Your task to perform on an android device: turn off translation in the chrome app Image 0: 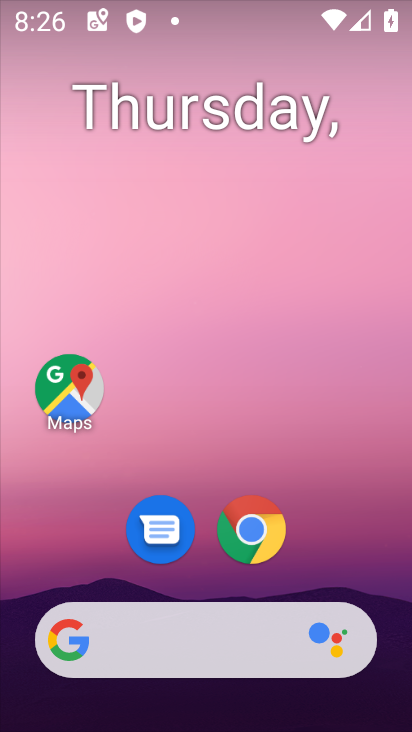
Step 0: click (258, 529)
Your task to perform on an android device: turn off translation in the chrome app Image 1: 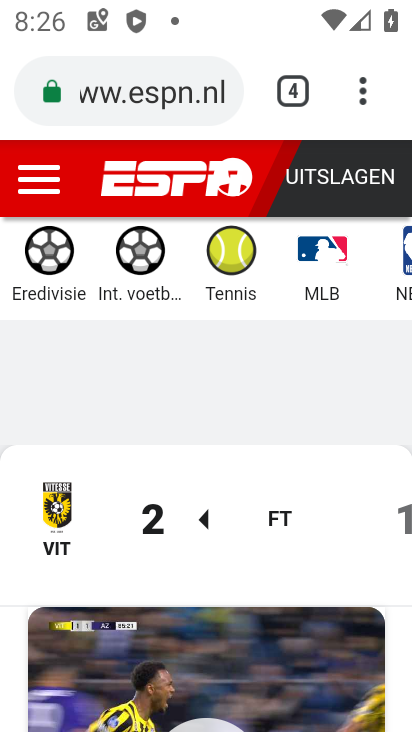
Step 1: click (361, 103)
Your task to perform on an android device: turn off translation in the chrome app Image 2: 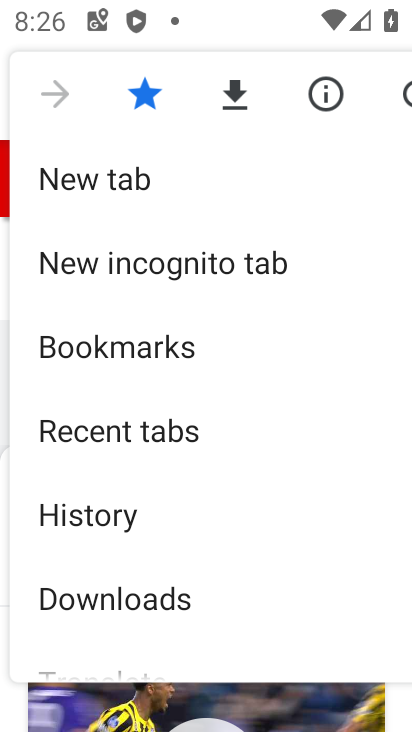
Step 2: drag from (115, 602) to (159, 226)
Your task to perform on an android device: turn off translation in the chrome app Image 3: 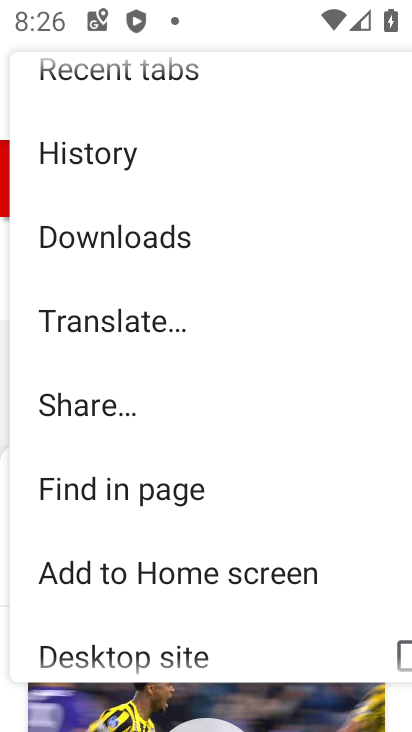
Step 3: drag from (126, 622) to (156, 254)
Your task to perform on an android device: turn off translation in the chrome app Image 4: 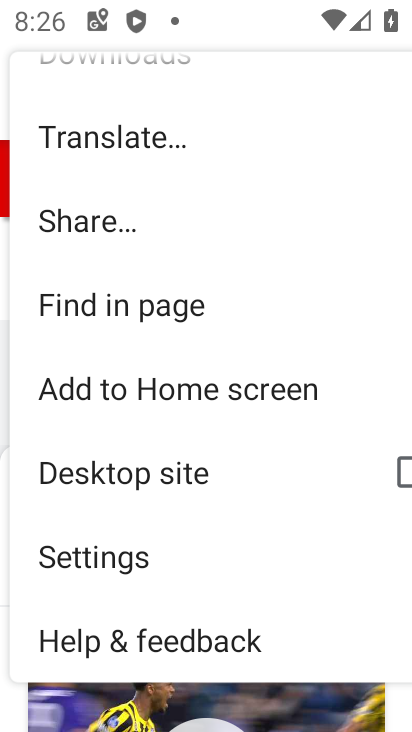
Step 4: click (107, 549)
Your task to perform on an android device: turn off translation in the chrome app Image 5: 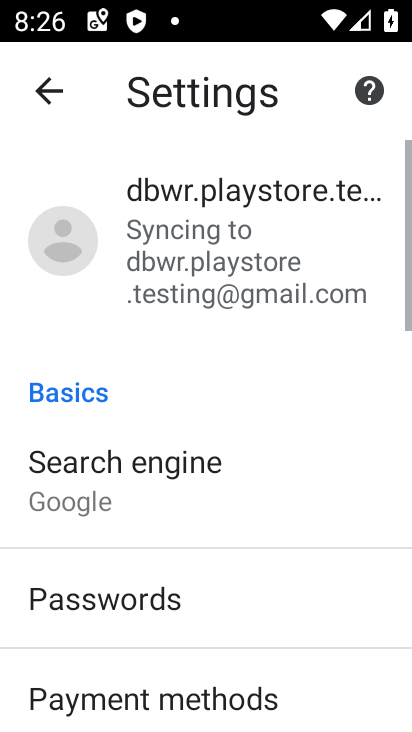
Step 5: drag from (122, 663) to (125, 598)
Your task to perform on an android device: turn off translation in the chrome app Image 6: 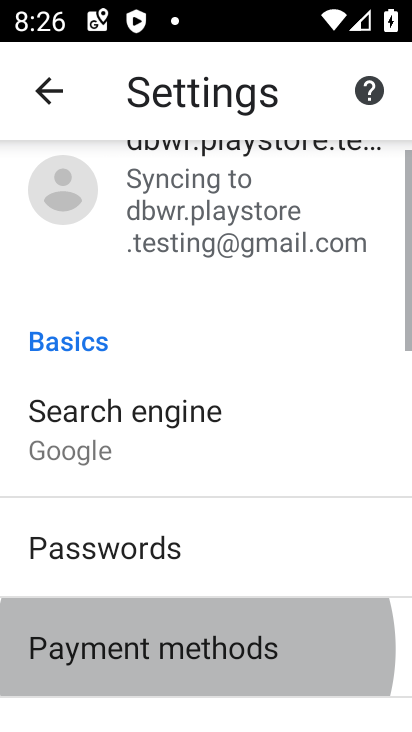
Step 6: drag from (132, 466) to (132, 270)
Your task to perform on an android device: turn off translation in the chrome app Image 7: 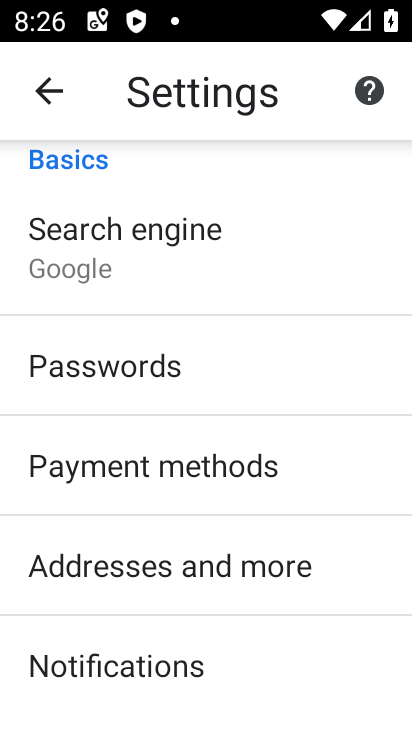
Step 7: drag from (126, 681) to (151, 255)
Your task to perform on an android device: turn off translation in the chrome app Image 8: 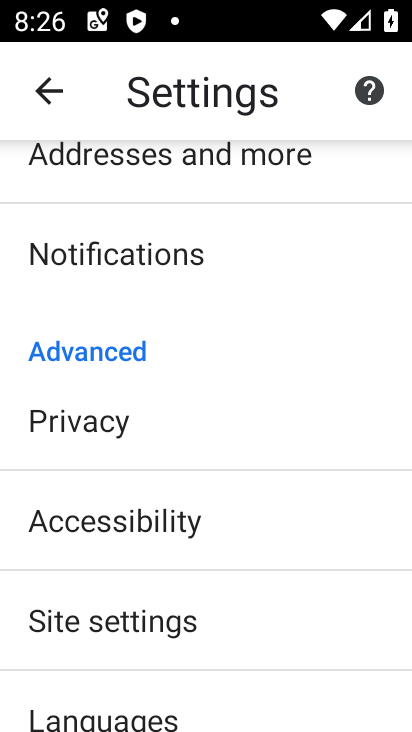
Step 8: drag from (118, 679) to (126, 281)
Your task to perform on an android device: turn off translation in the chrome app Image 9: 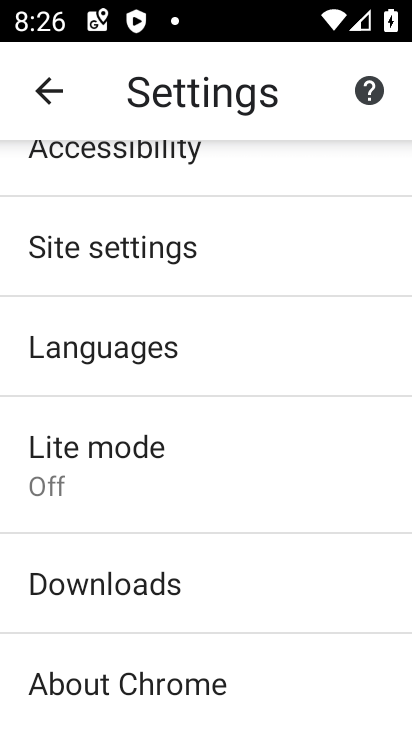
Step 9: click (108, 350)
Your task to perform on an android device: turn off translation in the chrome app Image 10: 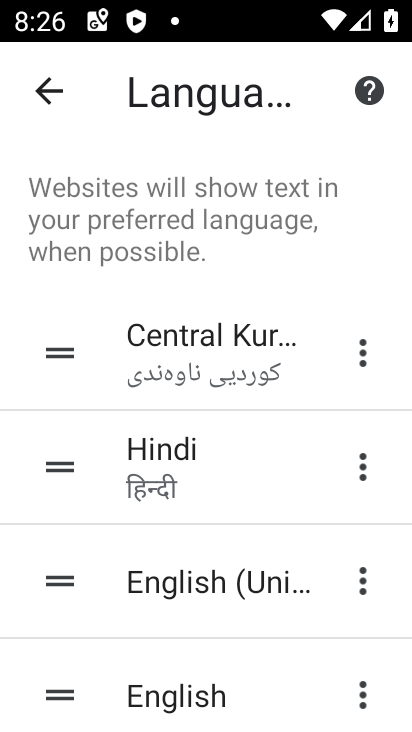
Step 10: task complete